Your task to perform on an android device: change the clock display to show seconds Image 0: 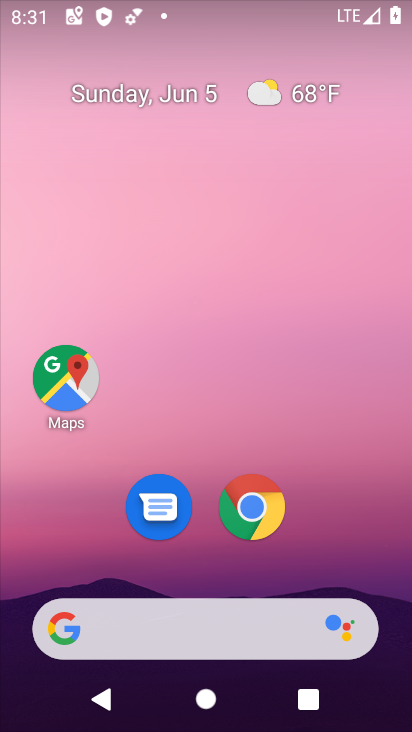
Step 0: drag from (231, 563) to (329, 35)
Your task to perform on an android device: change the clock display to show seconds Image 1: 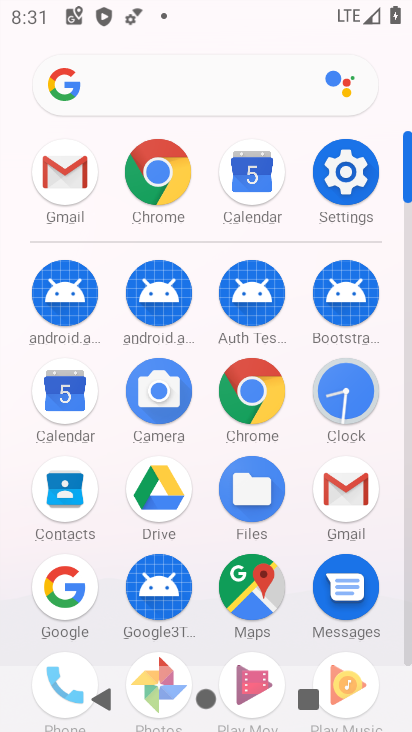
Step 1: click (348, 393)
Your task to perform on an android device: change the clock display to show seconds Image 2: 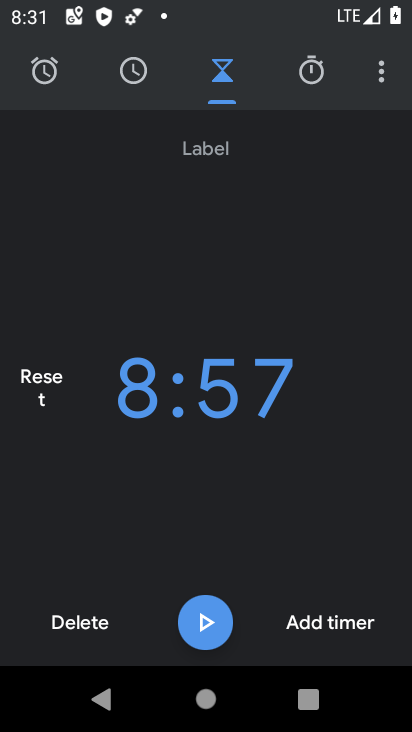
Step 2: click (388, 75)
Your task to perform on an android device: change the clock display to show seconds Image 3: 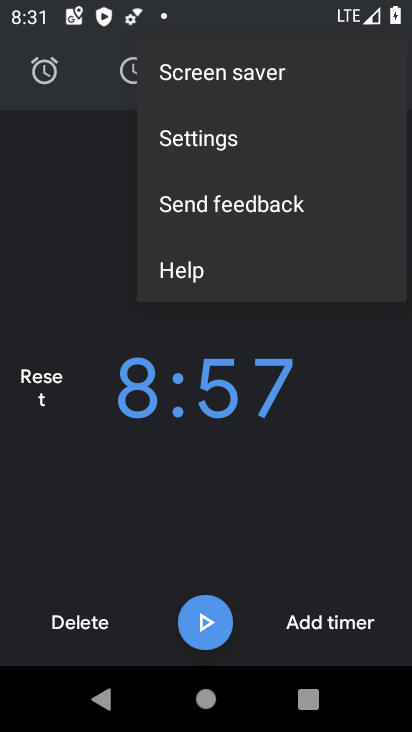
Step 3: click (219, 149)
Your task to perform on an android device: change the clock display to show seconds Image 4: 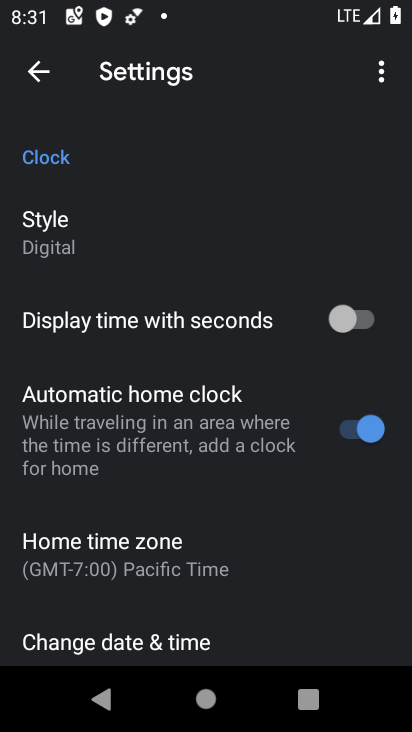
Step 4: click (384, 306)
Your task to perform on an android device: change the clock display to show seconds Image 5: 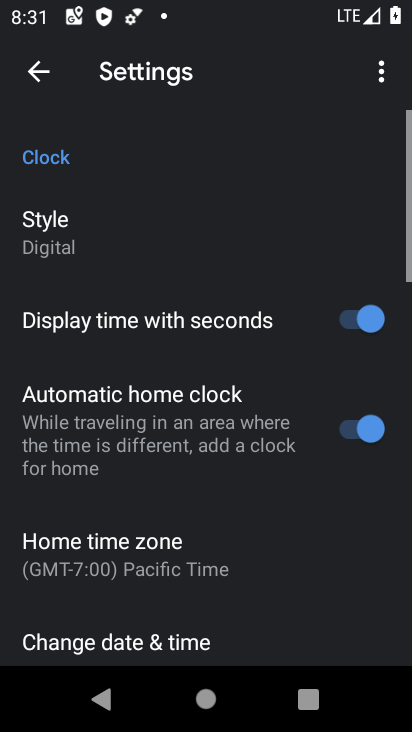
Step 5: click (55, 233)
Your task to perform on an android device: change the clock display to show seconds Image 6: 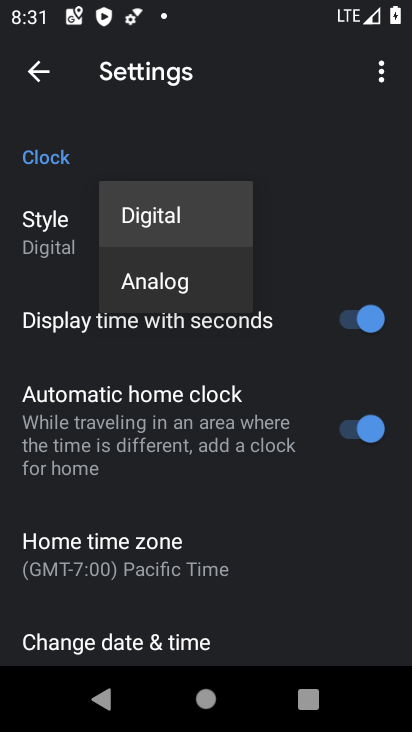
Step 6: click (156, 297)
Your task to perform on an android device: change the clock display to show seconds Image 7: 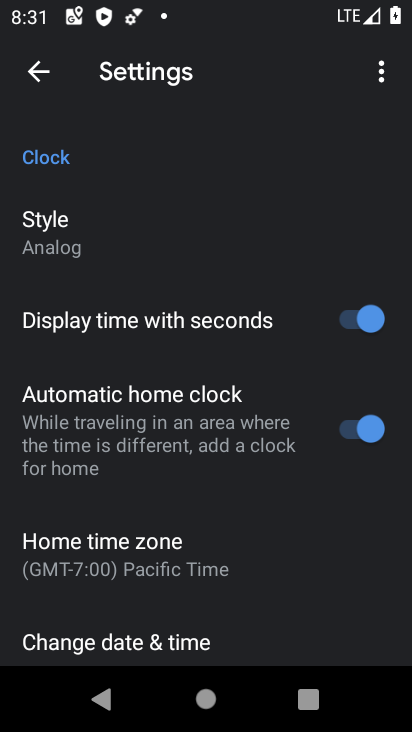
Step 7: task complete